Your task to perform on an android device: What's the weather going to be tomorrow? Image 0: 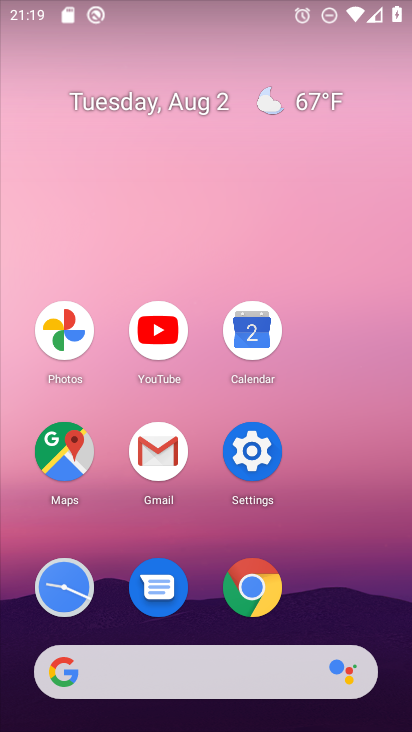
Step 0: click (186, 673)
Your task to perform on an android device: What's the weather going to be tomorrow? Image 1: 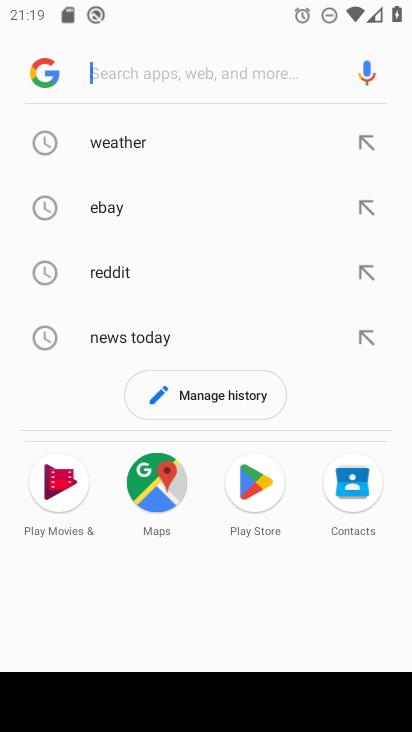
Step 1: click (113, 134)
Your task to perform on an android device: What's the weather going to be tomorrow? Image 2: 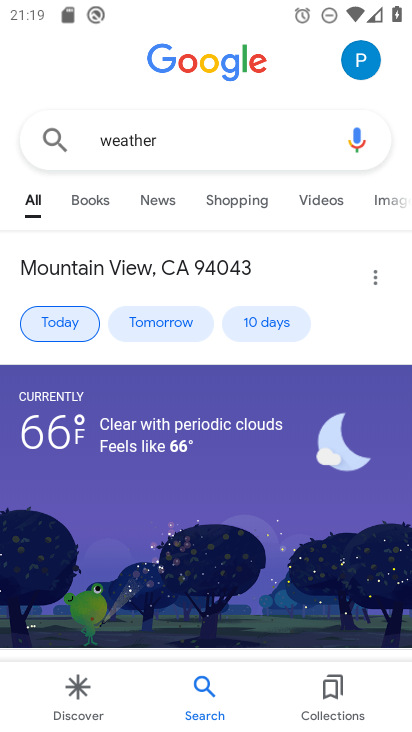
Step 2: click (167, 325)
Your task to perform on an android device: What's the weather going to be tomorrow? Image 3: 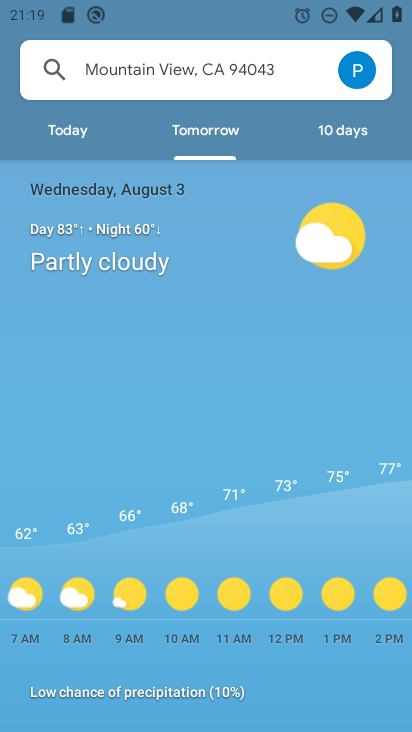
Step 3: task complete